Your task to perform on an android device: Open notification settings Image 0: 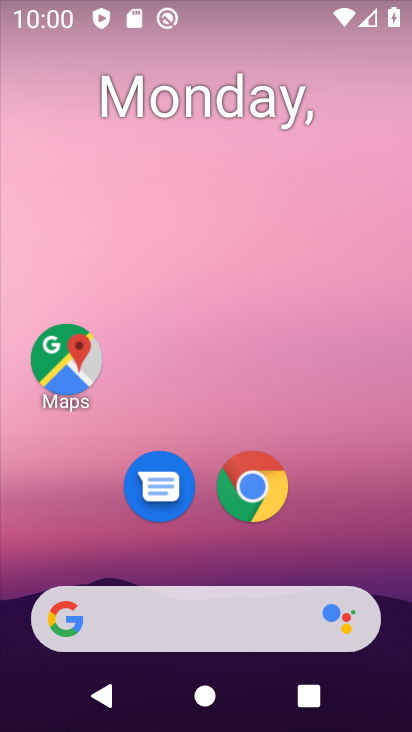
Step 0: drag from (347, 522) to (248, 146)
Your task to perform on an android device: Open notification settings Image 1: 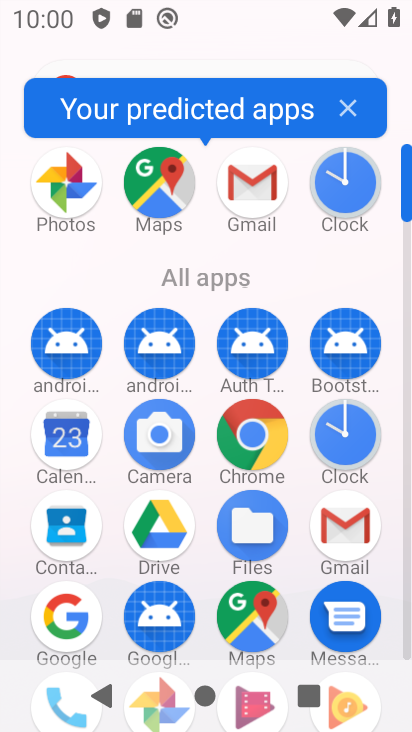
Step 1: drag from (116, 577) to (123, 247)
Your task to perform on an android device: Open notification settings Image 2: 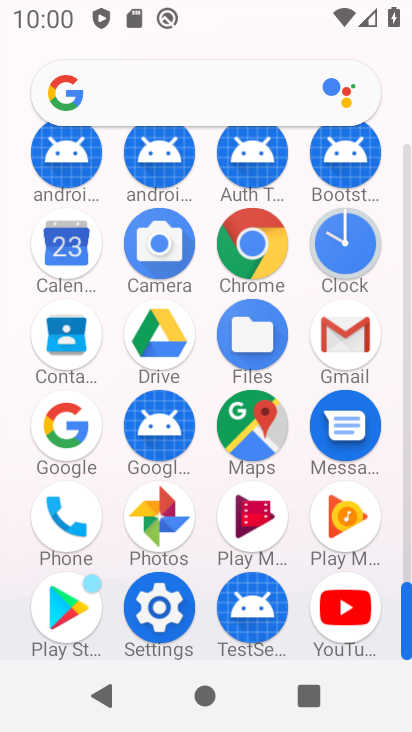
Step 2: click (163, 606)
Your task to perform on an android device: Open notification settings Image 3: 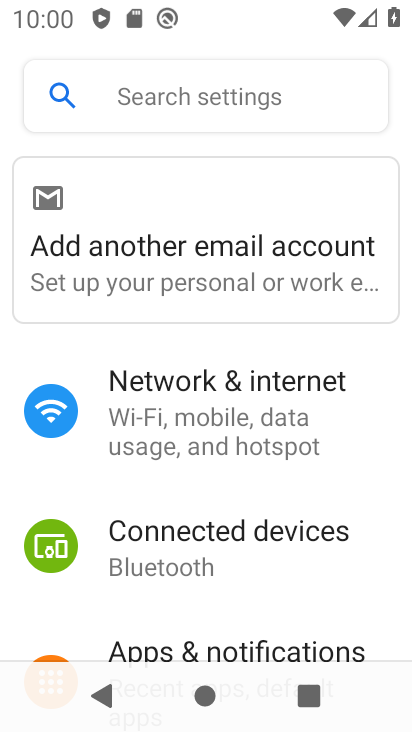
Step 3: drag from (216, 581) to (245, 480)
Your task to perform on an android device: Open notification settings Image 4: 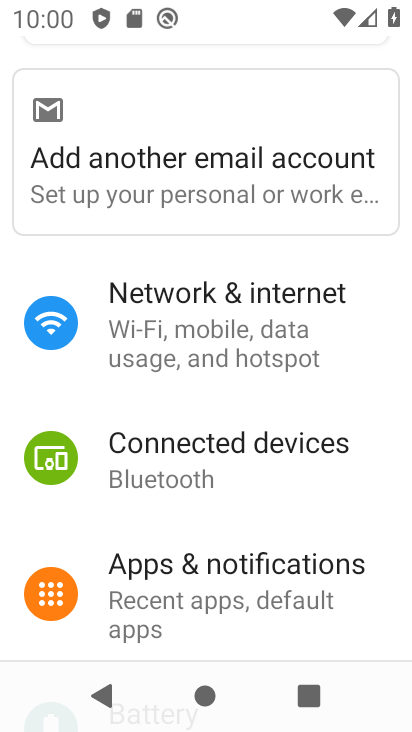
Step 4: click (232, 566)
Your task to perform on an android device: Open notification settings Image 5: 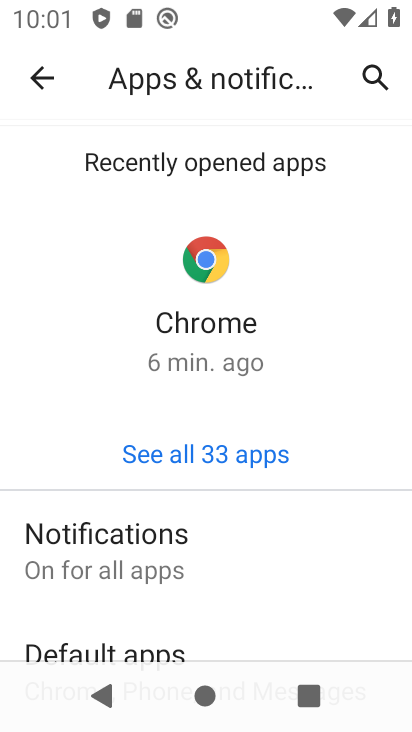
Step 5: click (145, 537)
Your task to perform on an android device: Open notification settings Image 6: 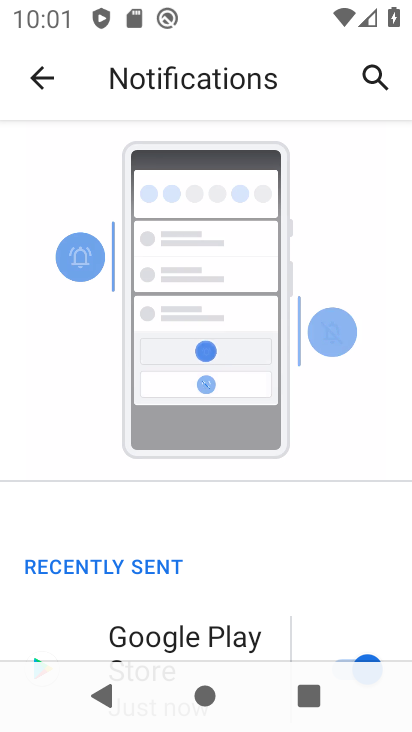
Step 6: task complete